Your task to perform on an android device: turn off improve location accuracy Image 0: 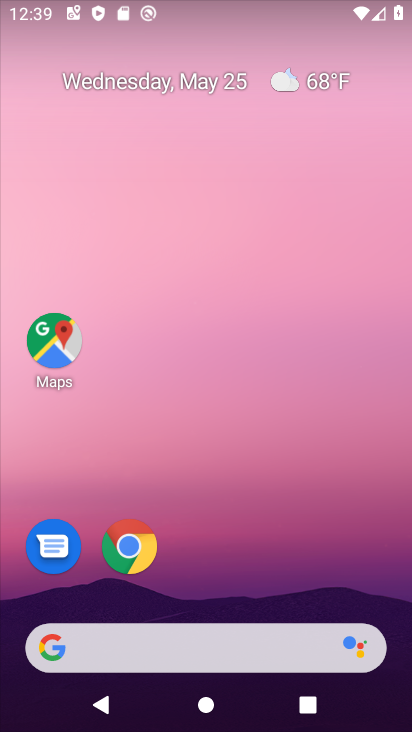
Step 0: drag from (298, 591) to (170, 108)
Your task to perform on an android device: turn off improve location accuracy Image 1: 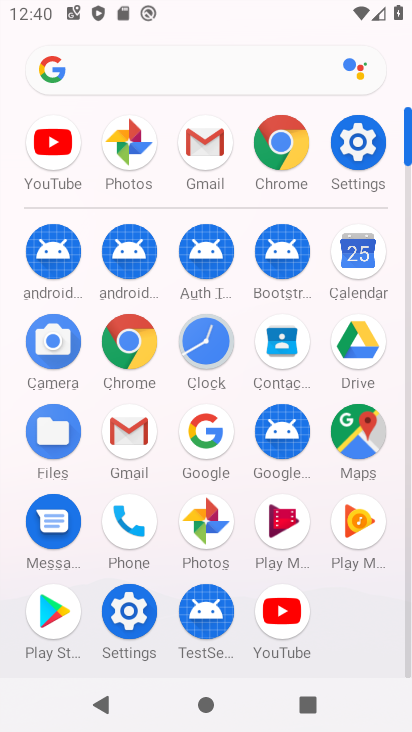
Step 1: click (343, 128)
Your task to perform on an android device: turn off improve location accuracy Image 2: 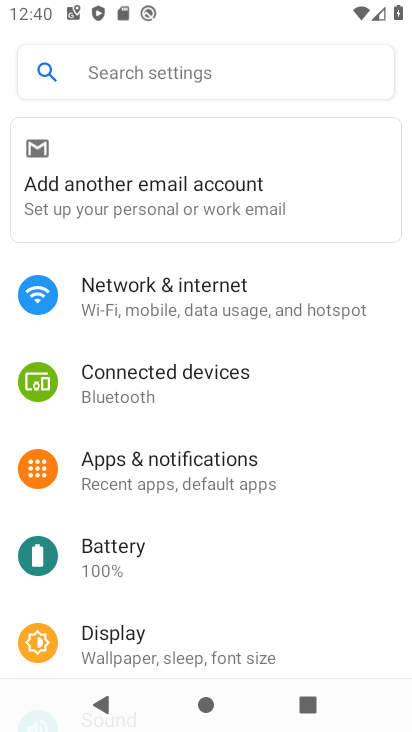
Step 2: drag from (178, 605) to (178, 353)
Your task to perform on an android device: turn off improve location accuracy Image 3: 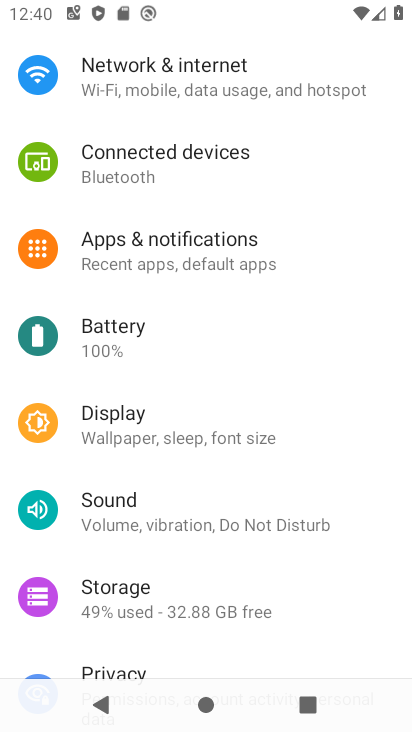
Step 3: drag from (166, 630) to (152, 415)
Your task to perform on an android device: turn off improve location accuracy Image 4: 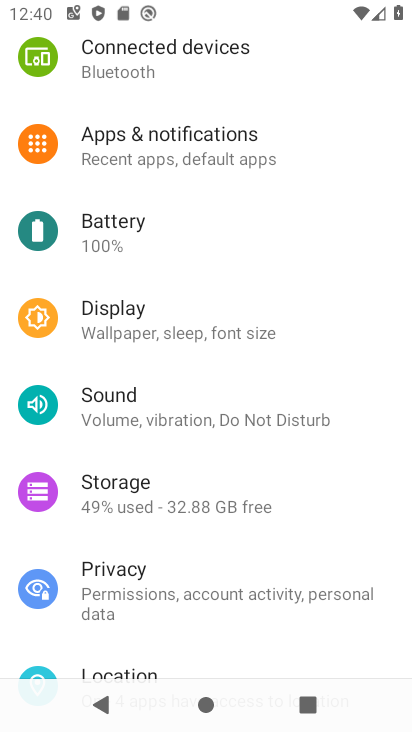
Step 4: drag from (198, 624) to (198, 325)
Your task to perform on an android device: turn off improve location accuracy Image 5: 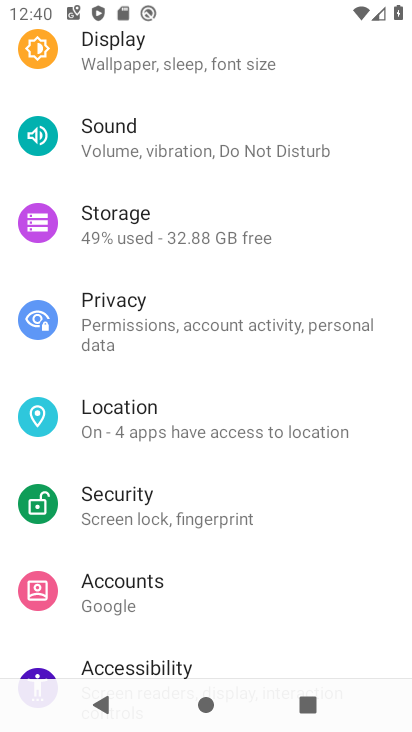
Step 5: click (191, 435)
Your task to perform on an android device: turn off improve location accuracy Image 6: 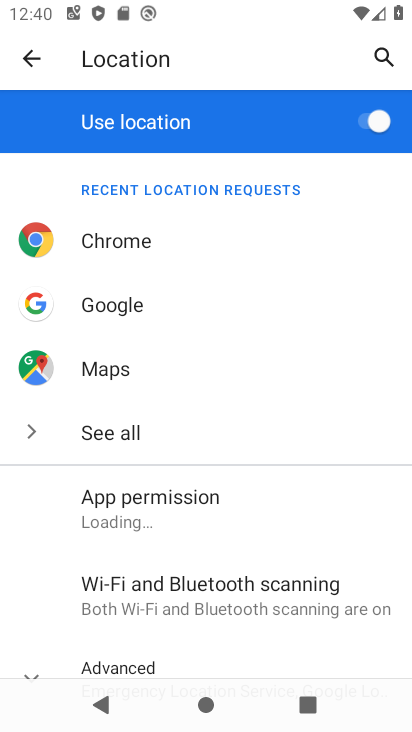
Step 6: drag from (164, 570) to (179, 269)
Your task to perform on an android device: turn off improve location accuracy Image 7: 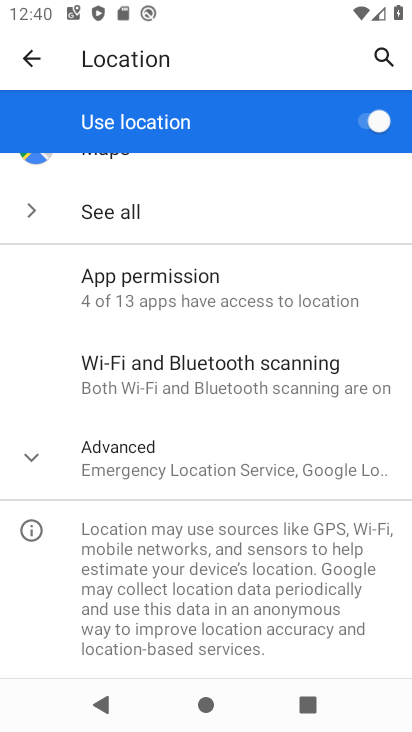
Step 7: click (160, 482)
Your task to perform on an android device: turn off improve location accuracy Image 8: 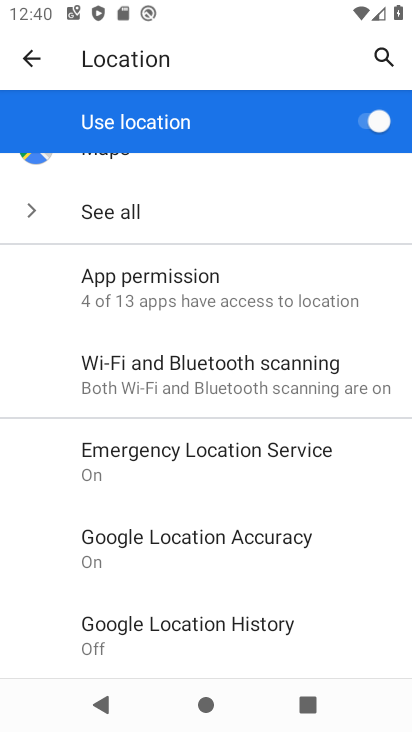
Step 8: click (221, 550)
Your task to perform on an android device: turn off improve location accuracy Image 9: 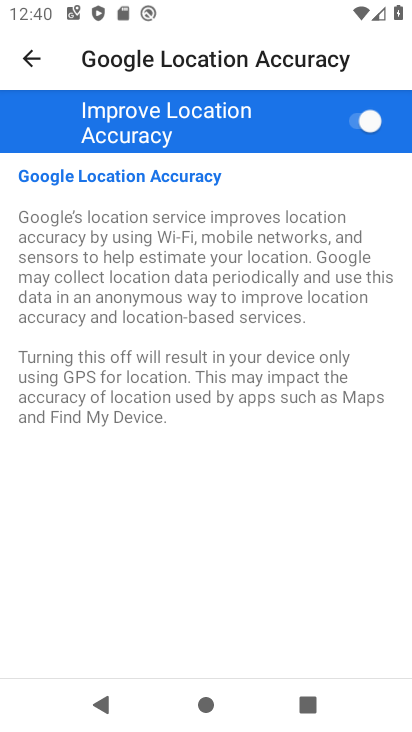
Step 9: click (348, 134)
Your task to perform on an android device: turn off improve location accuracy Image 10: 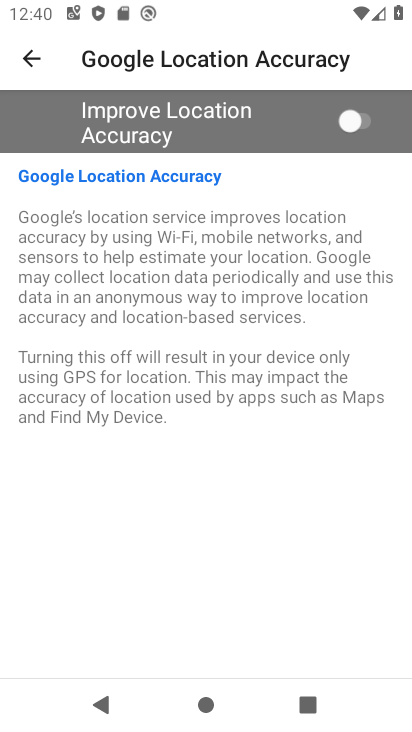
Step 10: task complete